Your task to perform on an android device: Open the phone app and click the voicemail tab. Image 0: 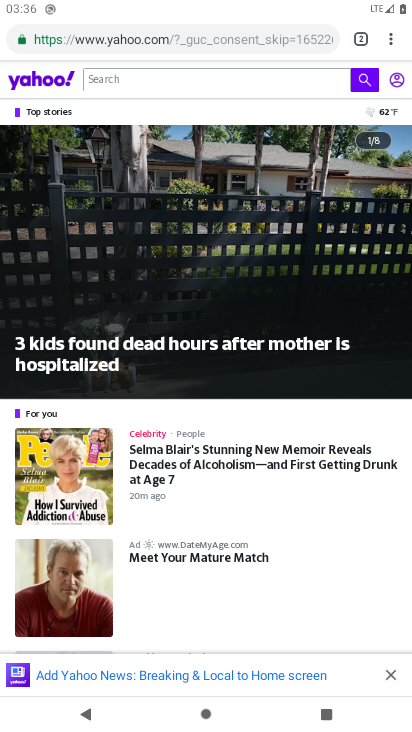
Step 0: press home button
Your task to perform on an android device: Open the phone app and click the voicemail tab. Image 1: 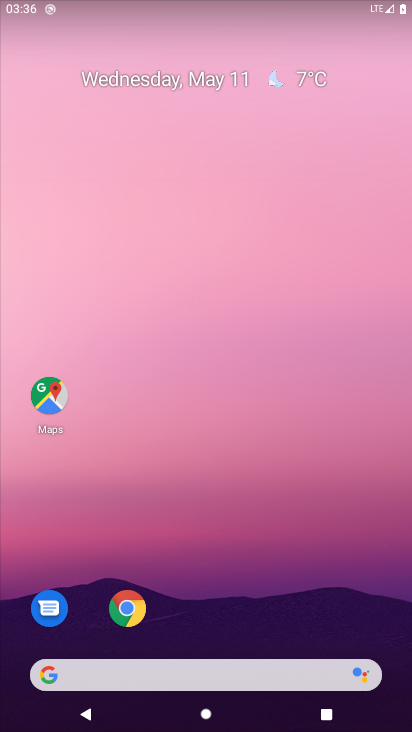
Step 1: drag from (210, 574) to (264, 67)
Your task to perform on an android device: Open the phone app and click the voicemail tab. Image 2: 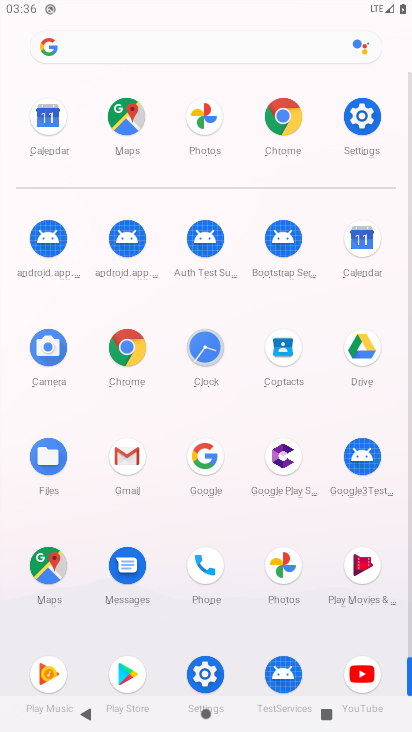
Step 2: click (197, 562)
Your task to perform on an android device: Open the phone app and click the voicemail tab. Image 3: 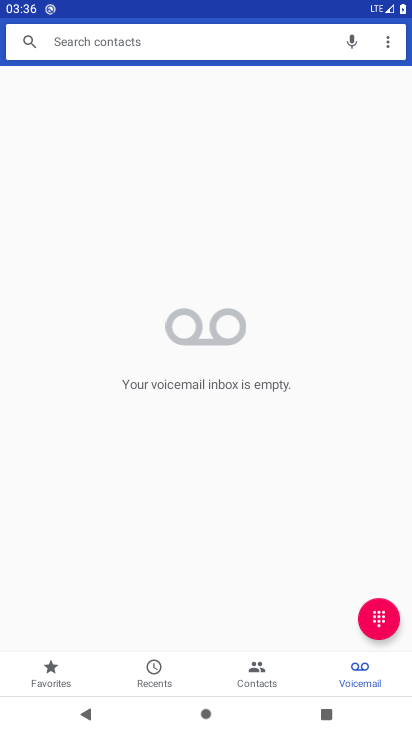
Step 3: click (345, 674)
Your task to perform on an android device: Open the phone app and click the voicemail tab. Image 4: 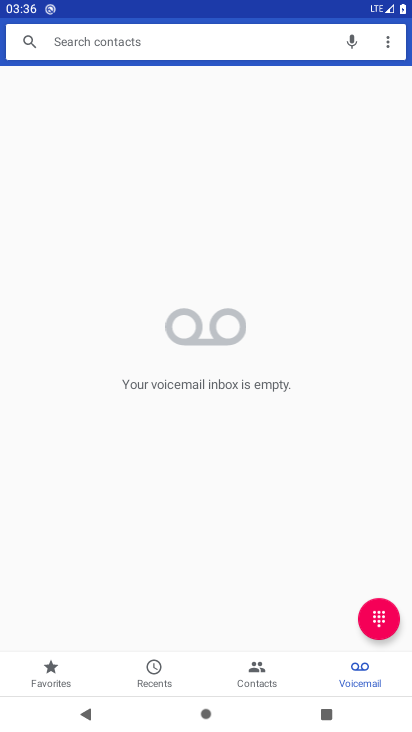
Step 4: task complete